Your task to perform on an android device: open device folders in google photos Image 0: 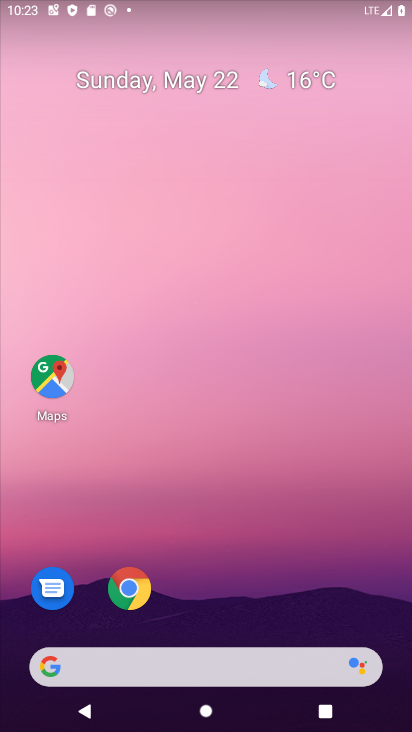
Step 0: drag from (220, 601) to (224, 227)
Your task to perform on an android device: open device folders in google photos Image 1: 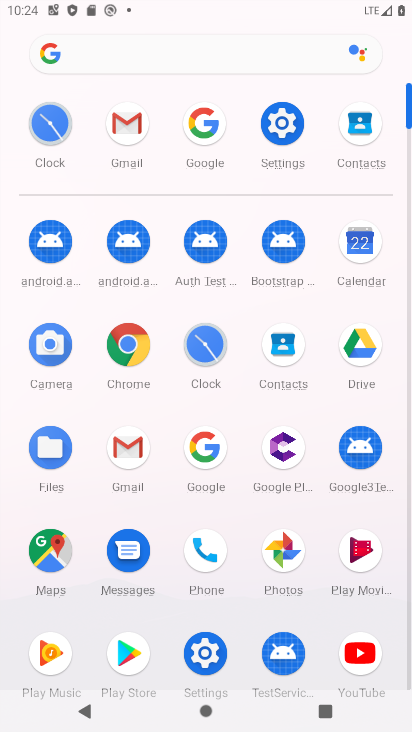
Step 1: click (265, 544)
Your task to perform on an android device: open device folders in google photos Image 2: 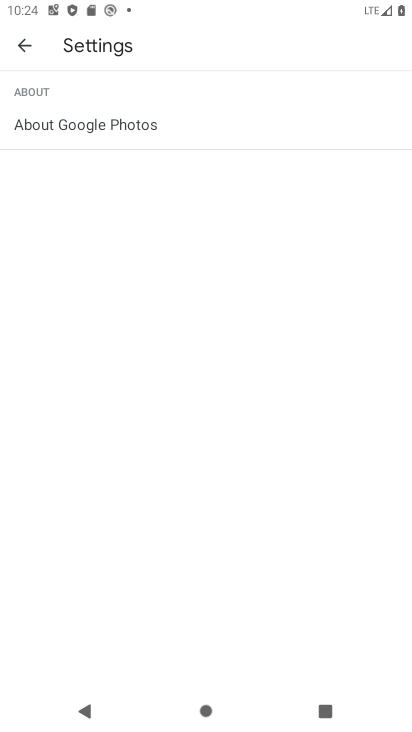
Step 2: click (28, 50)
Your task to perform on an android device: open device folders in google photos Image 3: 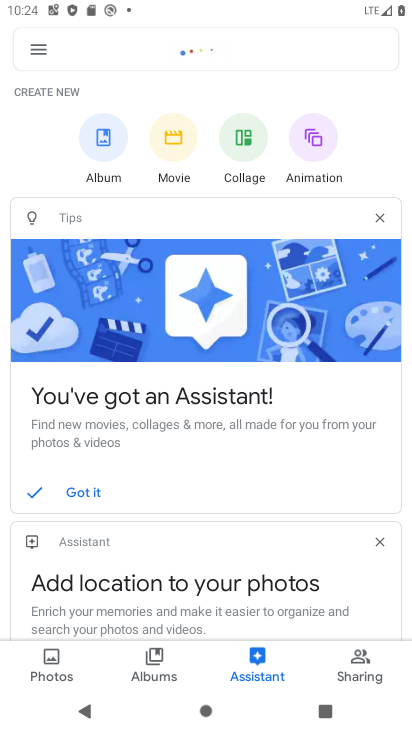
Step 3: click (38, 53)
Your task to perform on an android device: open device folders in google photos Image 4: 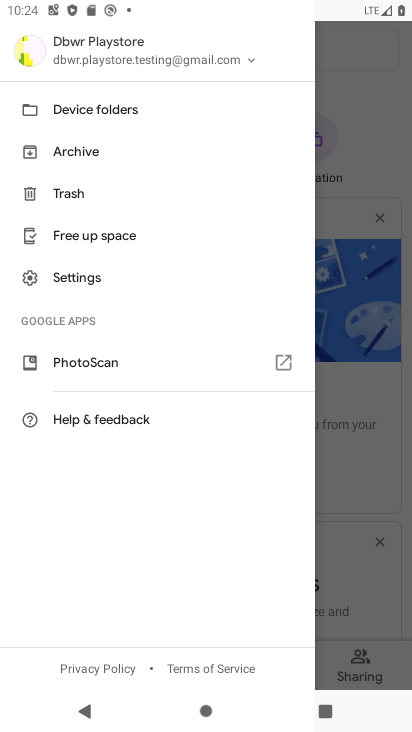
Step 4: click (78, 103)
Your task to perform on an android device: open device folders in google photos Image 5: 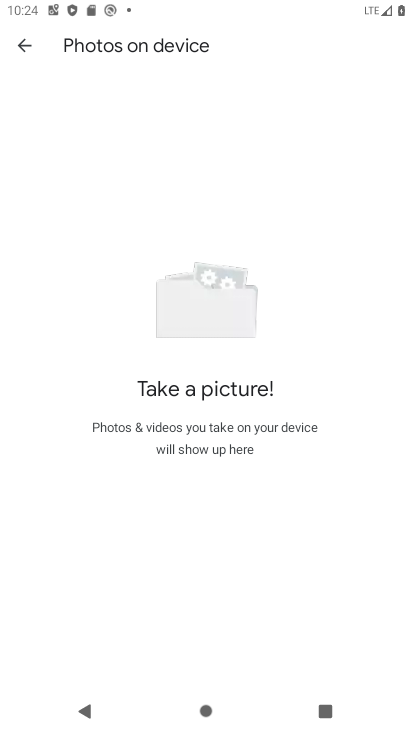
Step 5: task complete